Your task to perform on an android device: Open Amazon Image 0: 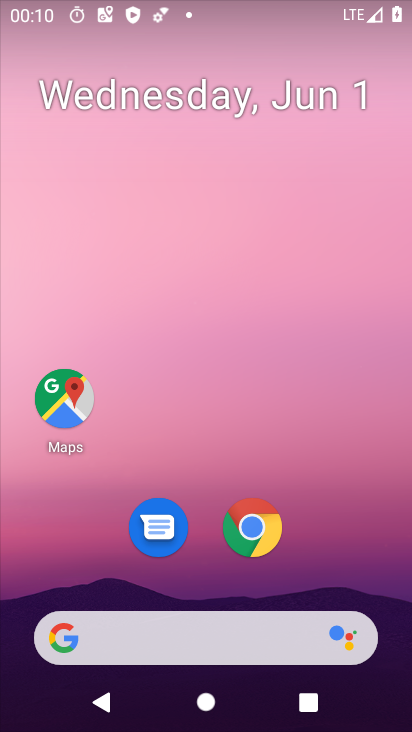
Step 0: drag from (233, 417) to (261, 16)
Your task to perform on an android device: Open Amazon Image 1: 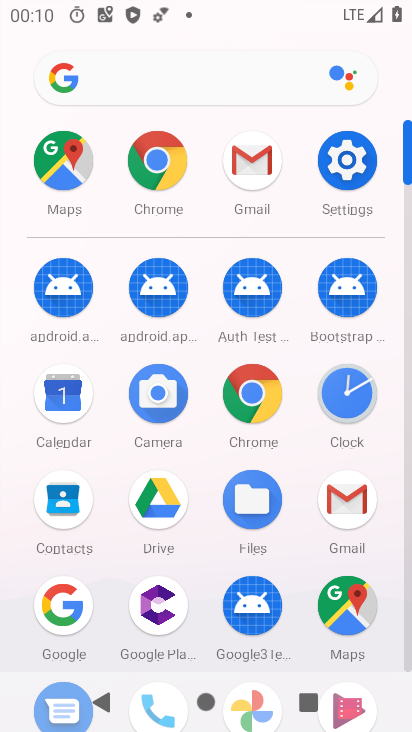
Step 1: click (115, 83)
Your task to perform on an android device: Open Amazon Image 2: 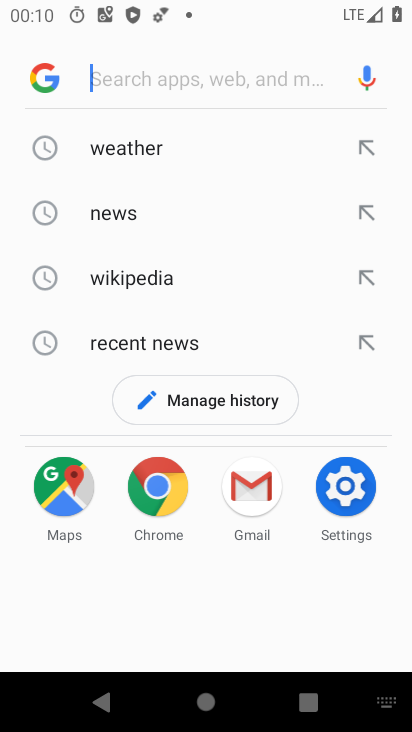
Step 2: type "Amazon"
Your task to perform on an android device: Open Amazon Image 3: 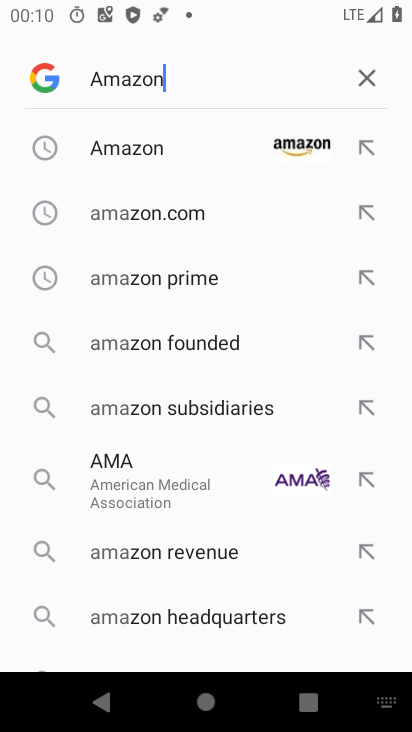
Step 3: type ""
Your task to perform on an android device: Open Amazon Image 4: 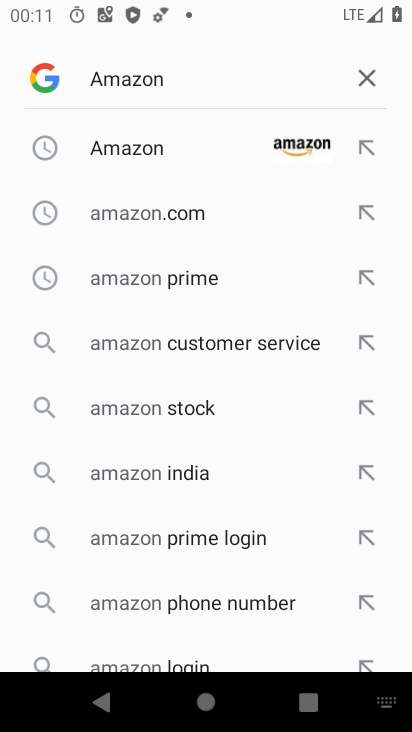
Step 4: click (146, 174)
Your task to perform on an android device: Open Amazon Image 5: 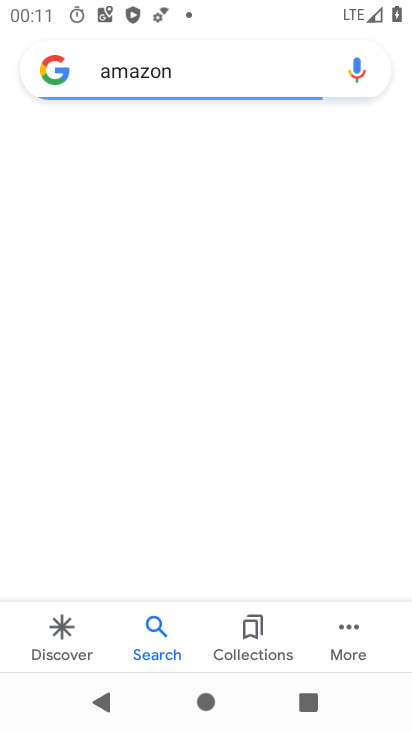
Step 5: click (210, 150)
Your task to perform on an android device: Open Amazon Image 6: 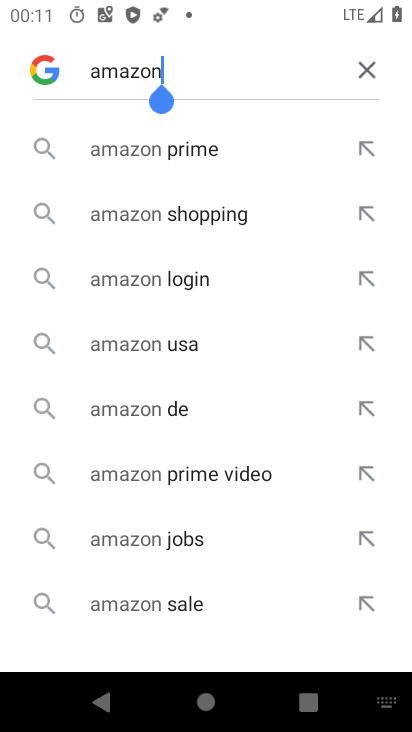
Step 6: drag from (231, 494) to (303, 167)
Your task to perform on an android device: Open Amazon Image 7: 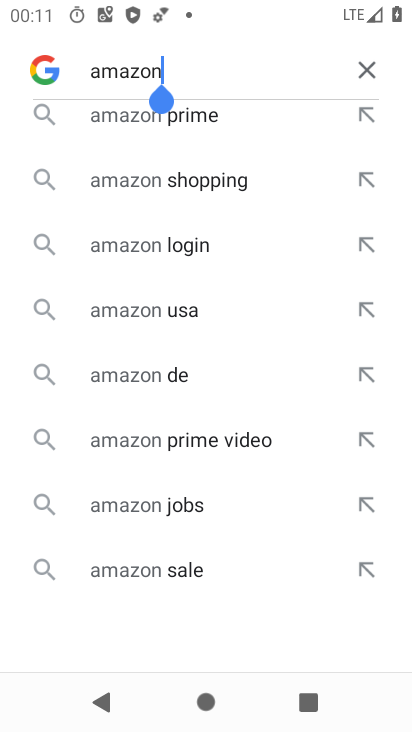
Step 7: drag from (257, 213) to (296, 663)
Your task to perform on an android device: Open Amazon Image 8: 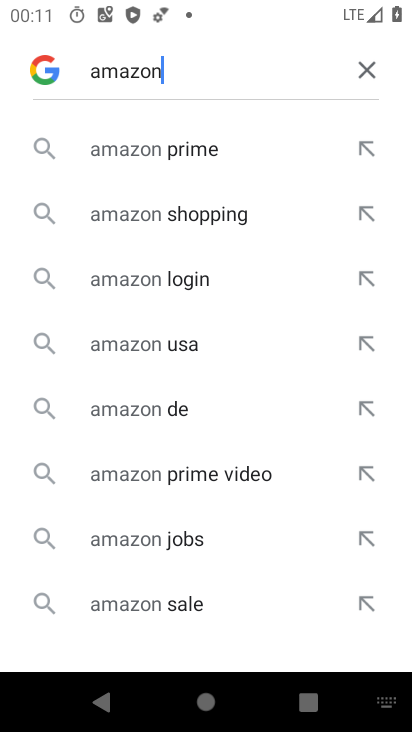
Step 8: click (141, 285)
Your task to perform on an android device: Open Amazon Image 9: 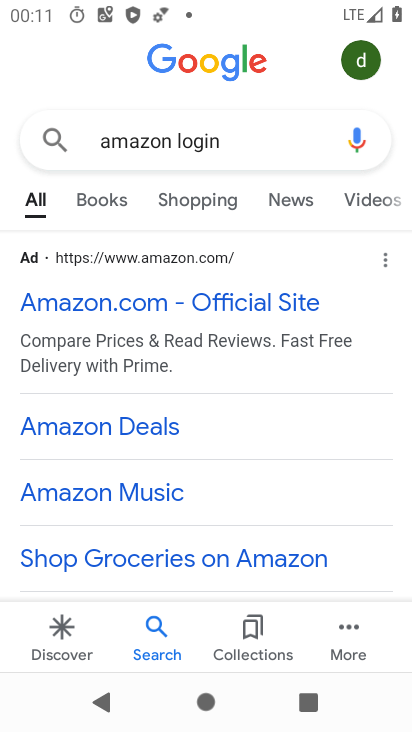
Step 9: click (73, 305)
Your task to perform on an android device: Open Amazon Image 10: 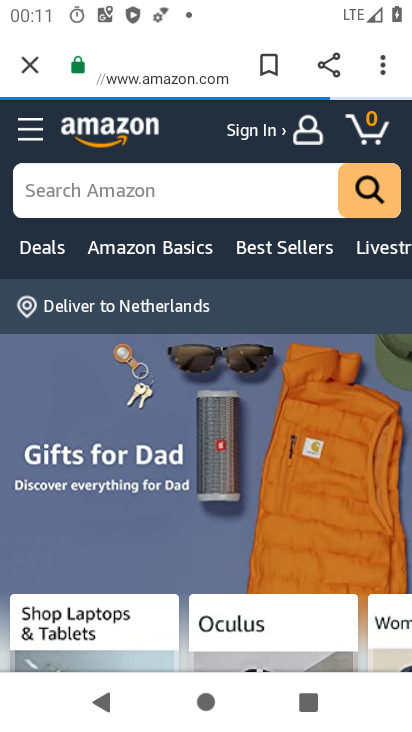
Step 10: task complete